Your task to perform on an android device: View the shopping cart on amazon.com. Add "beats solo 3" to the cart on amazon.com Image 0: 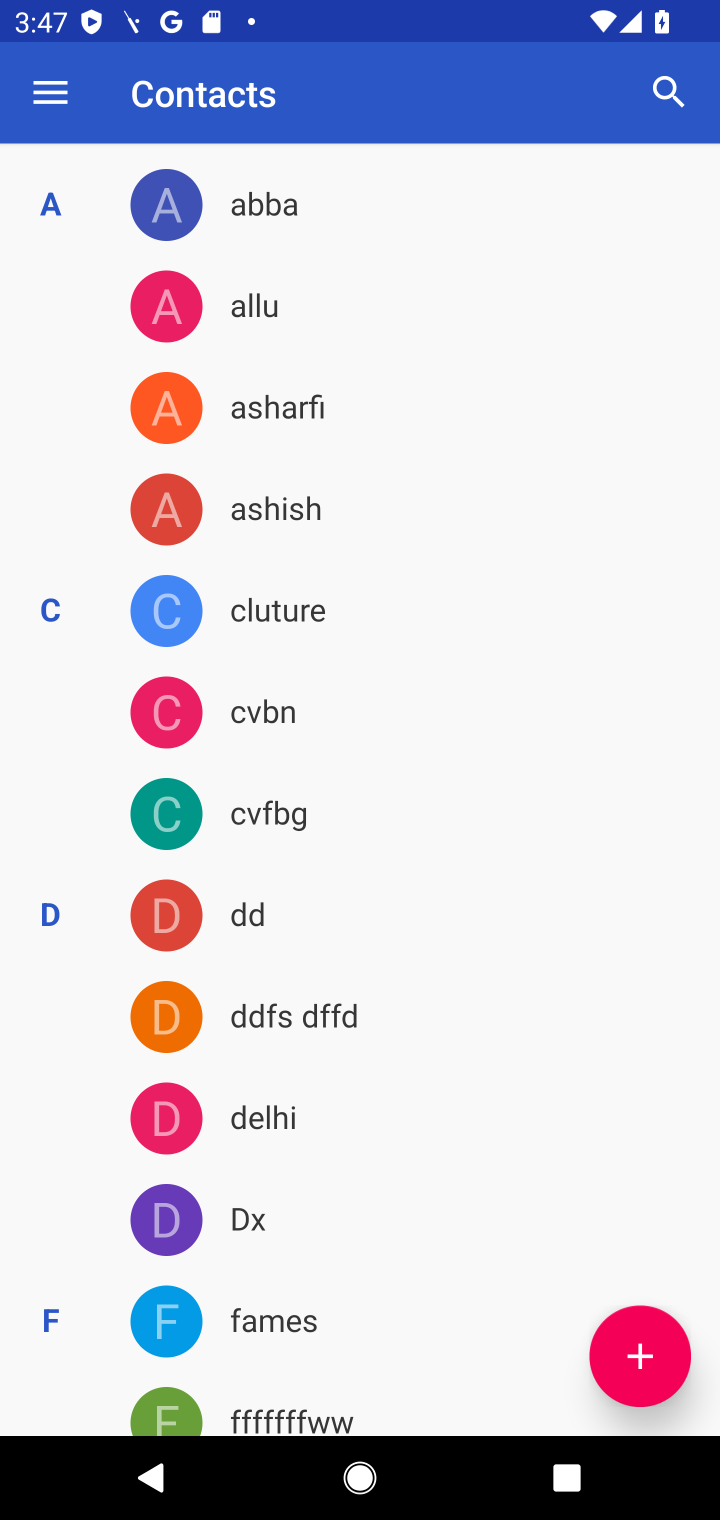
Step 0: press home button
Your task to perform on an android device: View the shopping cart on amazon.com. Add "beats solo 3" to the cart on amazon.com Image 1: 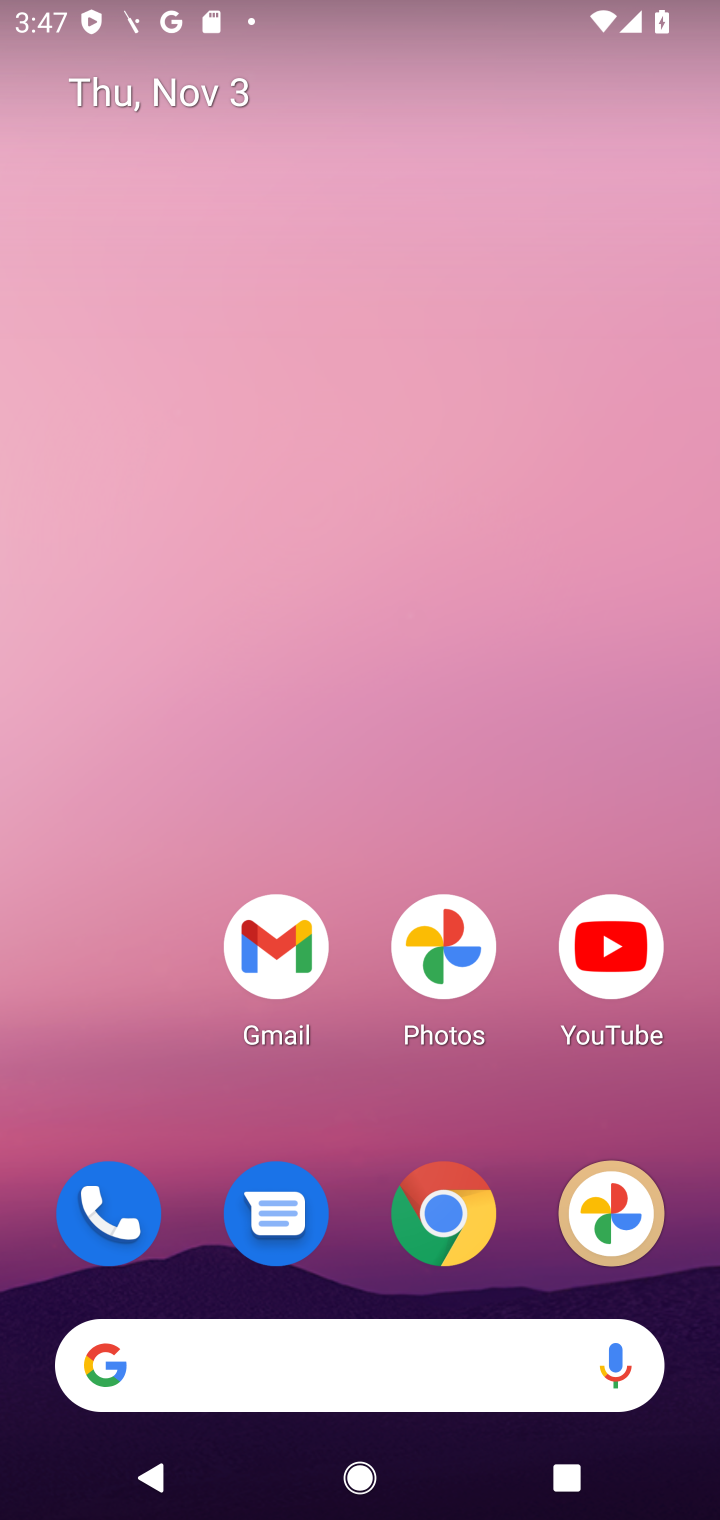
Step 1: click (436, 1234)
Your task to perform on an android device: View the shopping cart on amazon.com. Add "beats solo 3" to the cart on amazon.com Image 2: 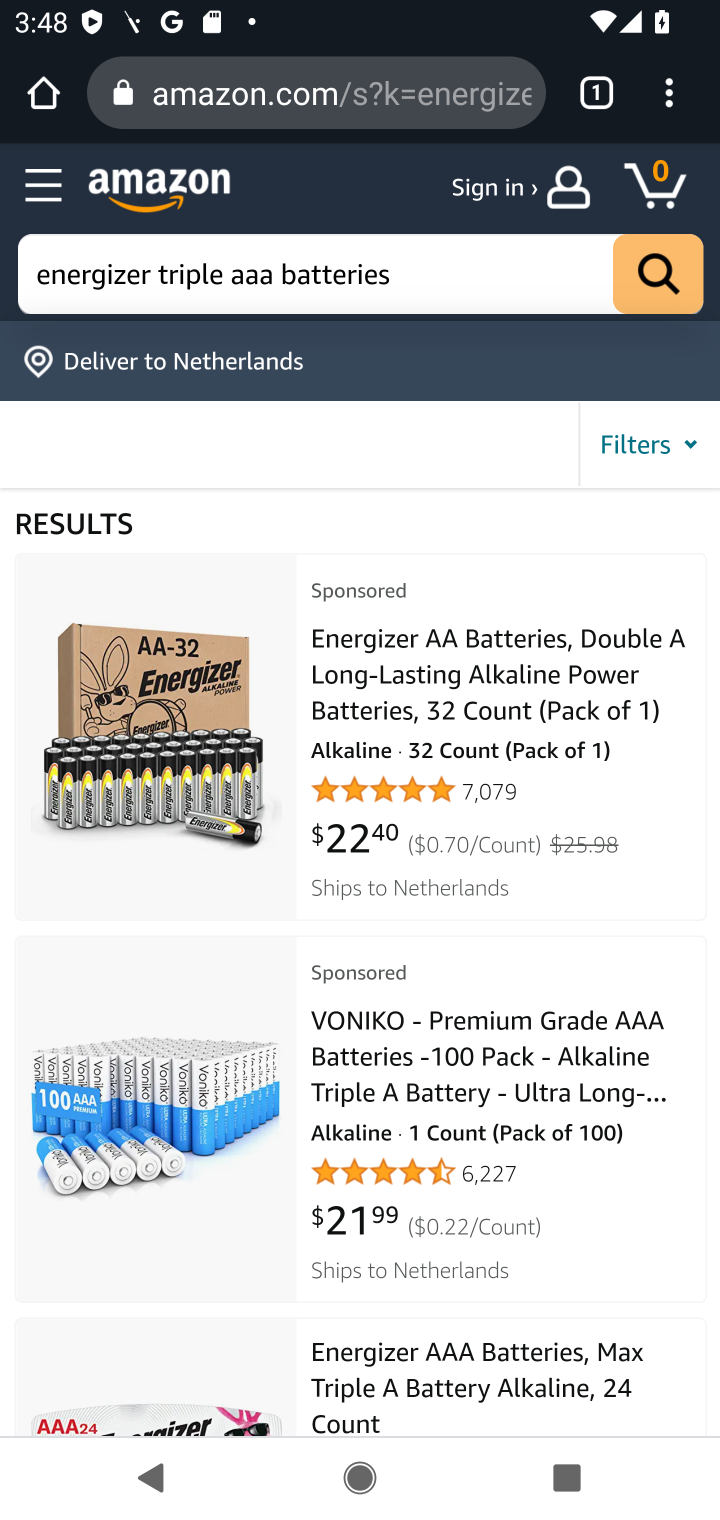
Step 2: click (658, 196)
Your task to perform on an android device: View the shopping cart on amazon.com. Add "beats solo 3" to the cart on amazon.com Image 3: 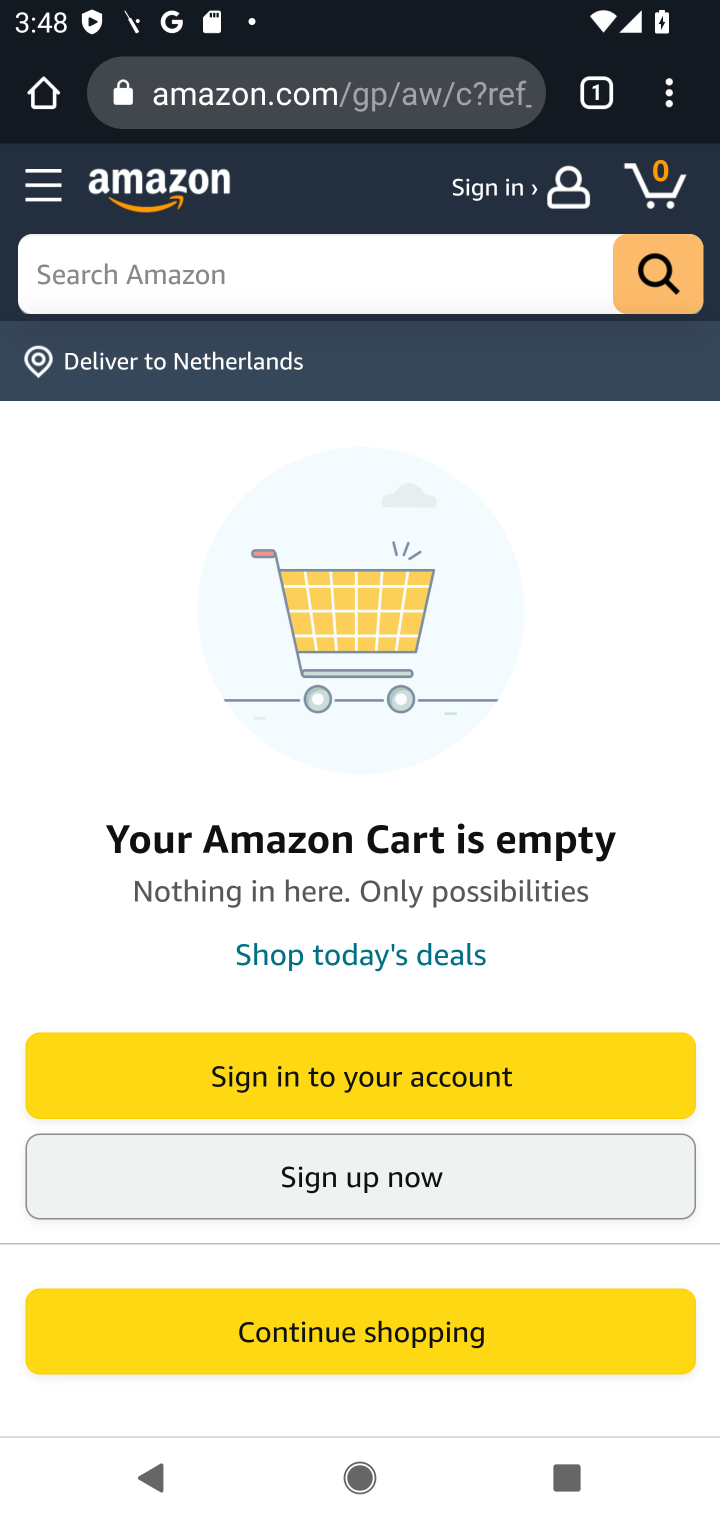
Step 3: click (208, 270)
Your task to perform on an android device: View the shopping cart on amazon.com. Add "beats solo 3" to the cart on amazon.com Image 4: 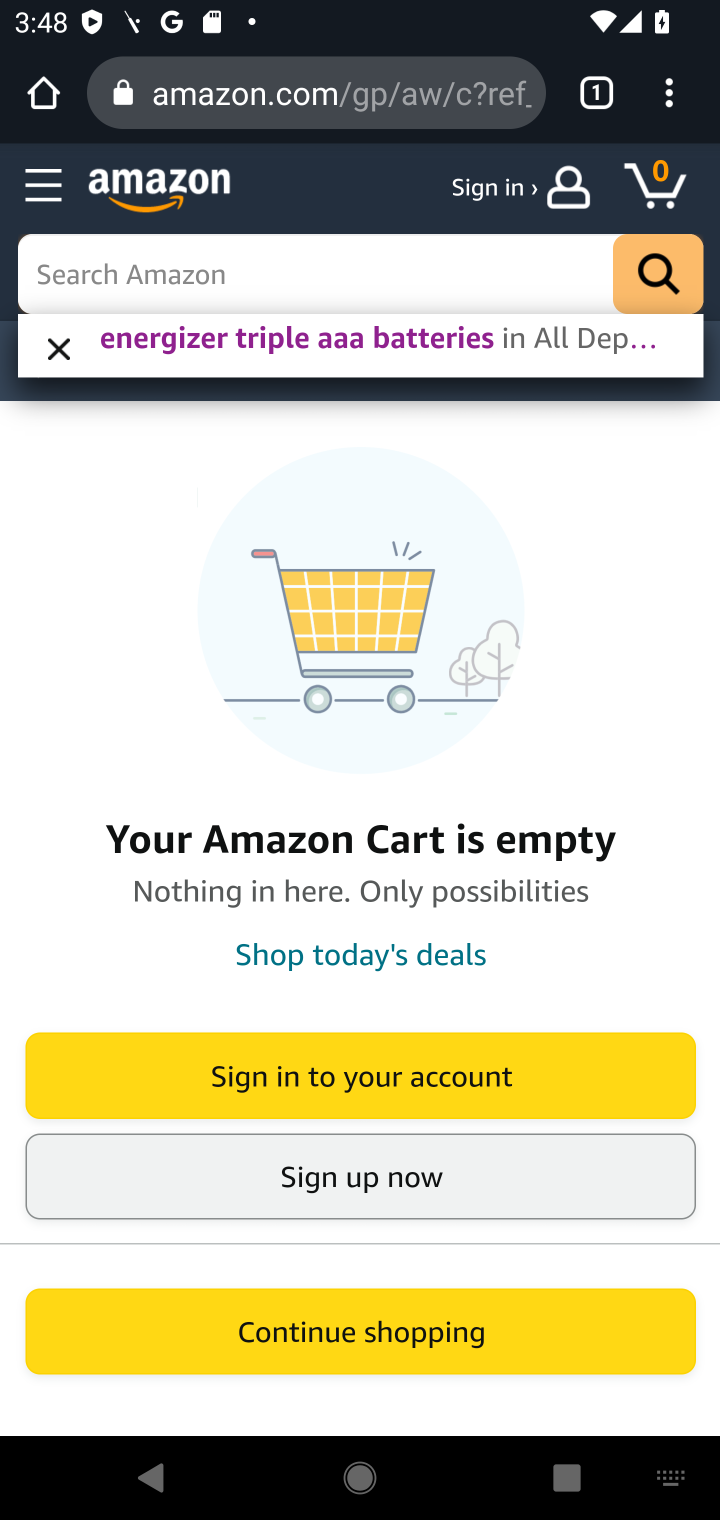
Step 4: type "beats solo 3"
Your task to perform on an android device: View the shopping cart on amazon.com. Add "beats solo 3" to the cart on amazon.com Image 5: 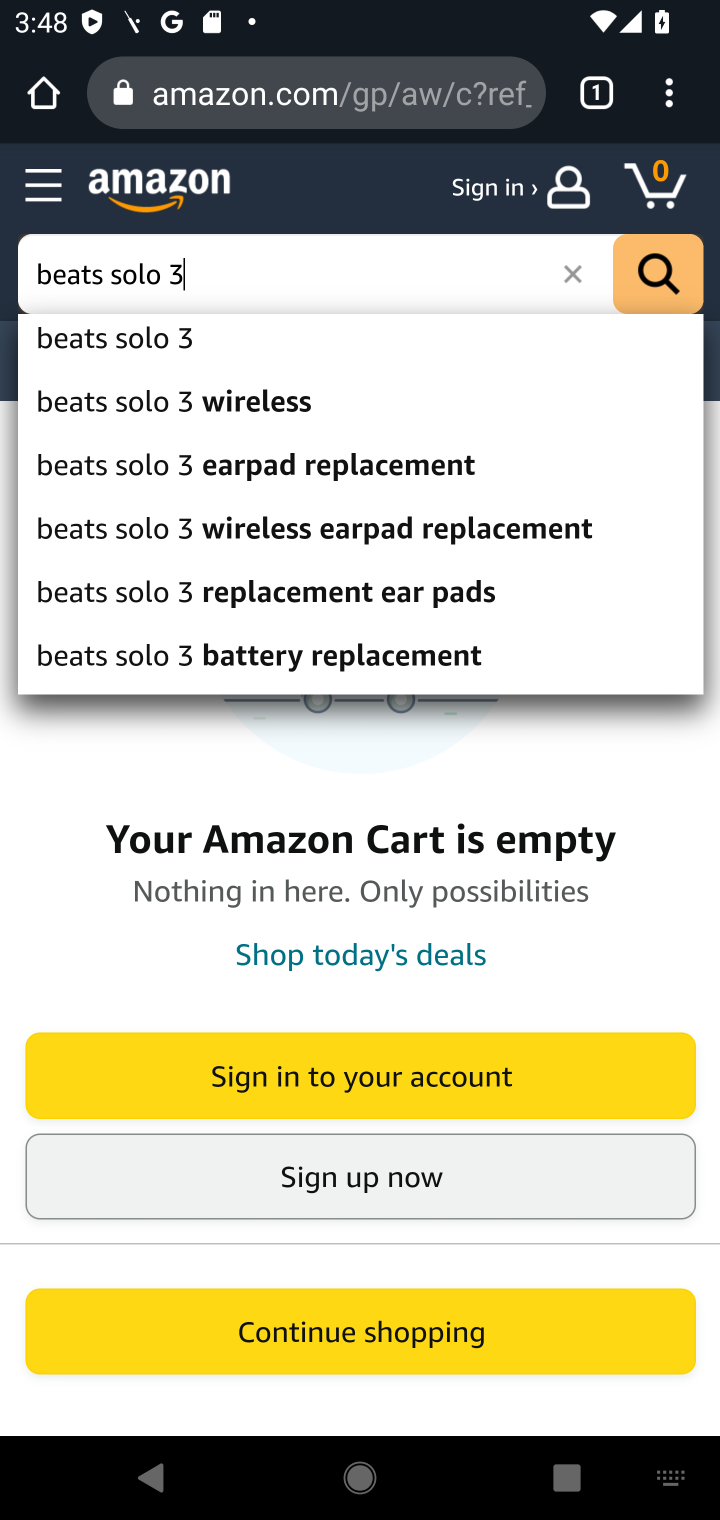
Step 5: click (53, 357)
Your task to perform on an android device: View the shopping cart on amazon.com. Add "beats solo 3" to the cart on amazon.com Image 6: 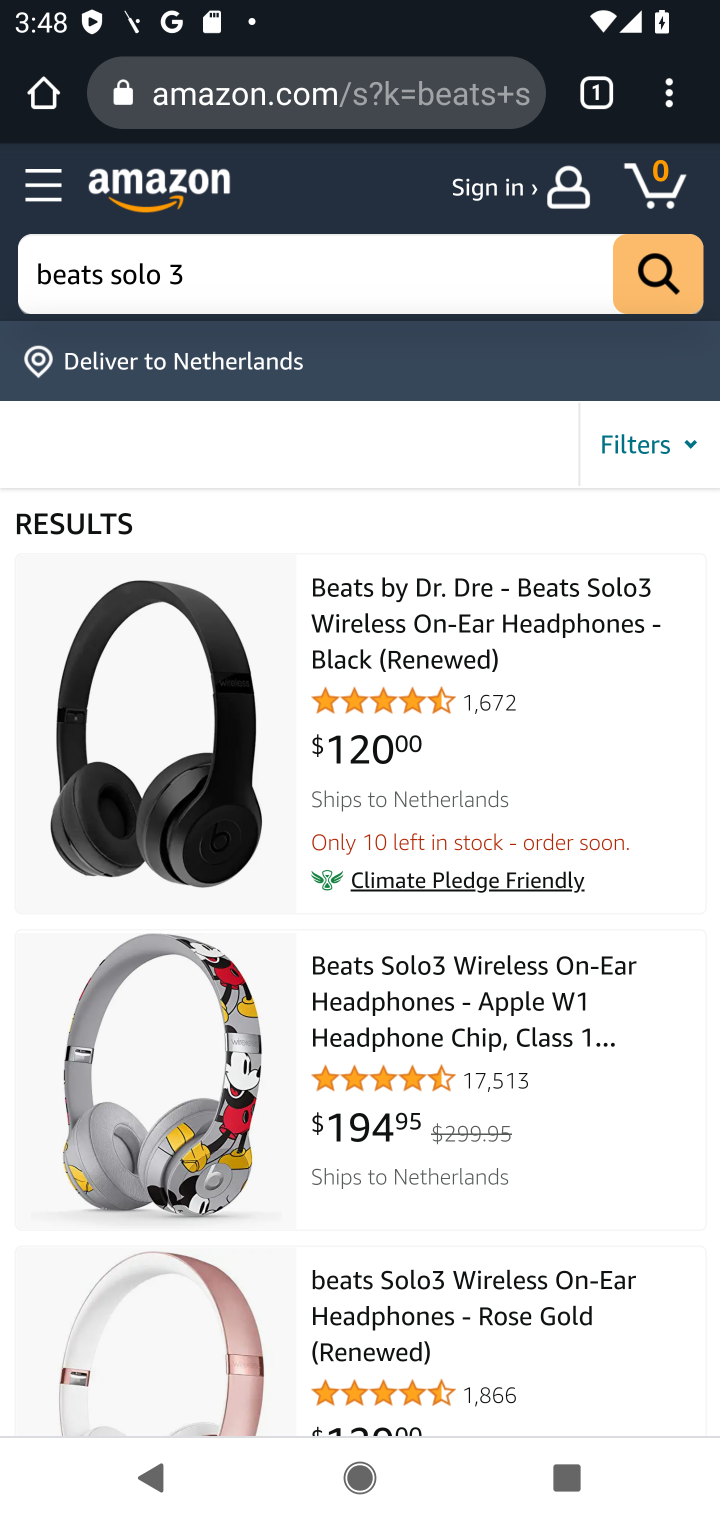
Step 6: click (374, 729)
Your task to perform on an android device: View the shopping cart on amazon.com. Add "beats solo 3" to the cart on amazon.com Image 7: 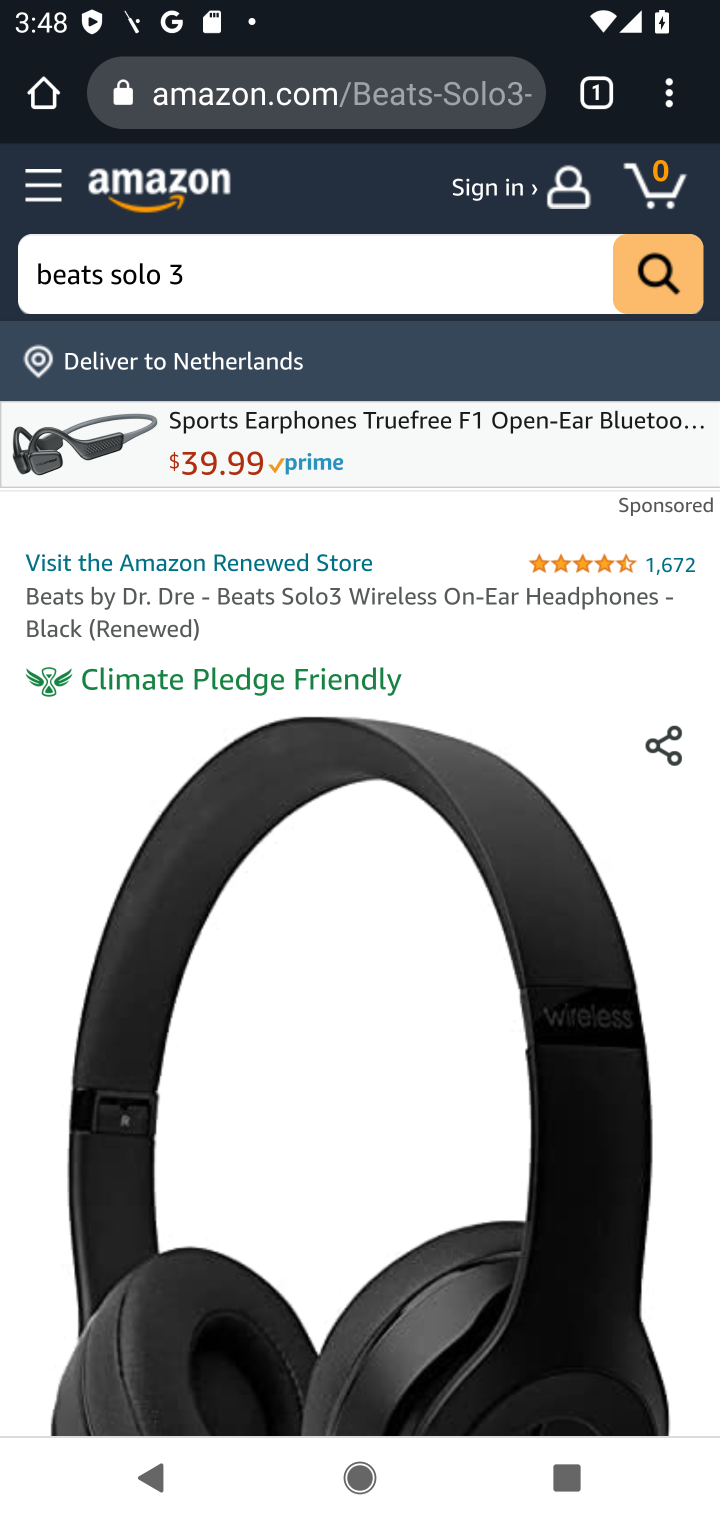
Step 7: drag from (370, 974) to (416, 263)
Your task to perform on an android device: View the shopping cart on amazon.com. Add "beats solo 3" to the cart on amazon.com Image 8: 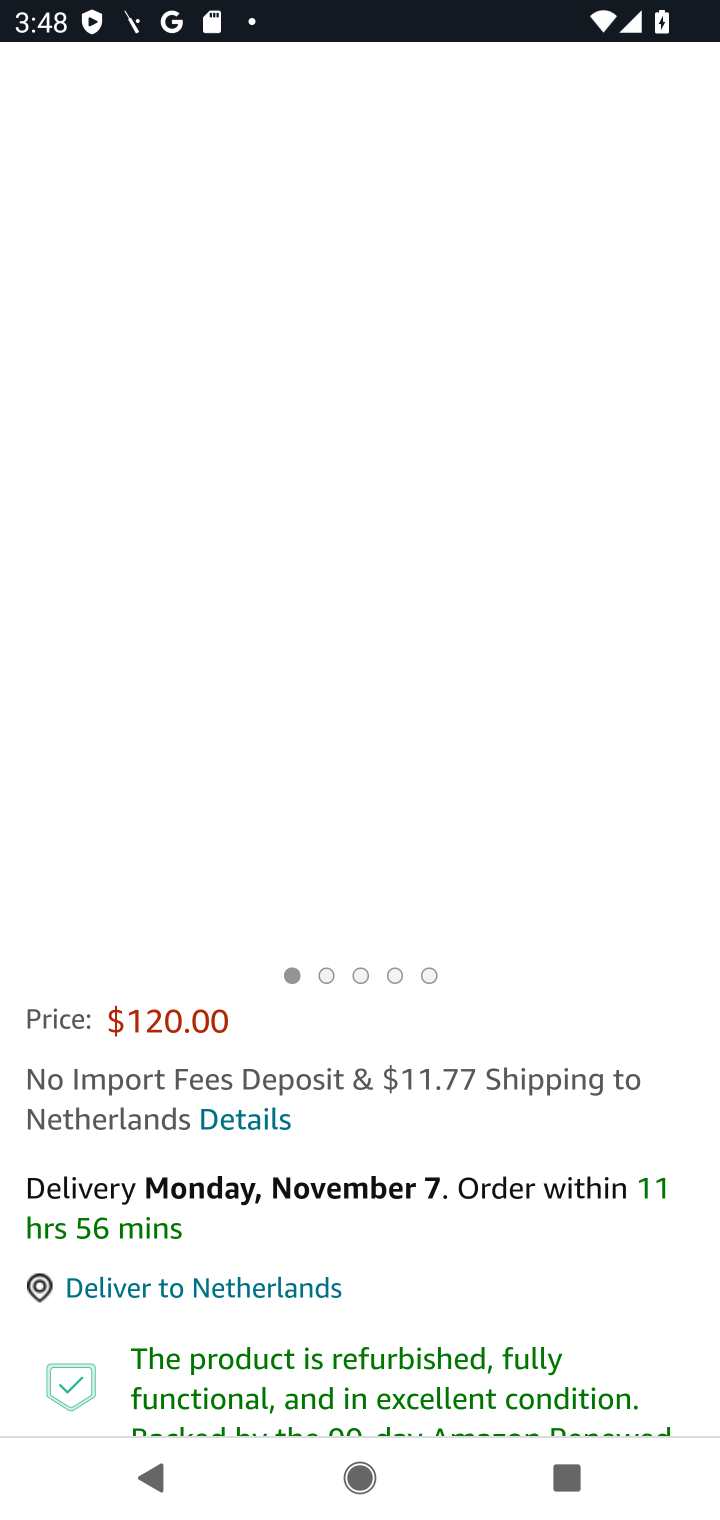
Step 8: drag from (334, 962) to (358, 249)
Your task to perform on an android device: View the shopping cart on amazon.com. Add "beats solo 3" to the cart on amazon.com Image 9: 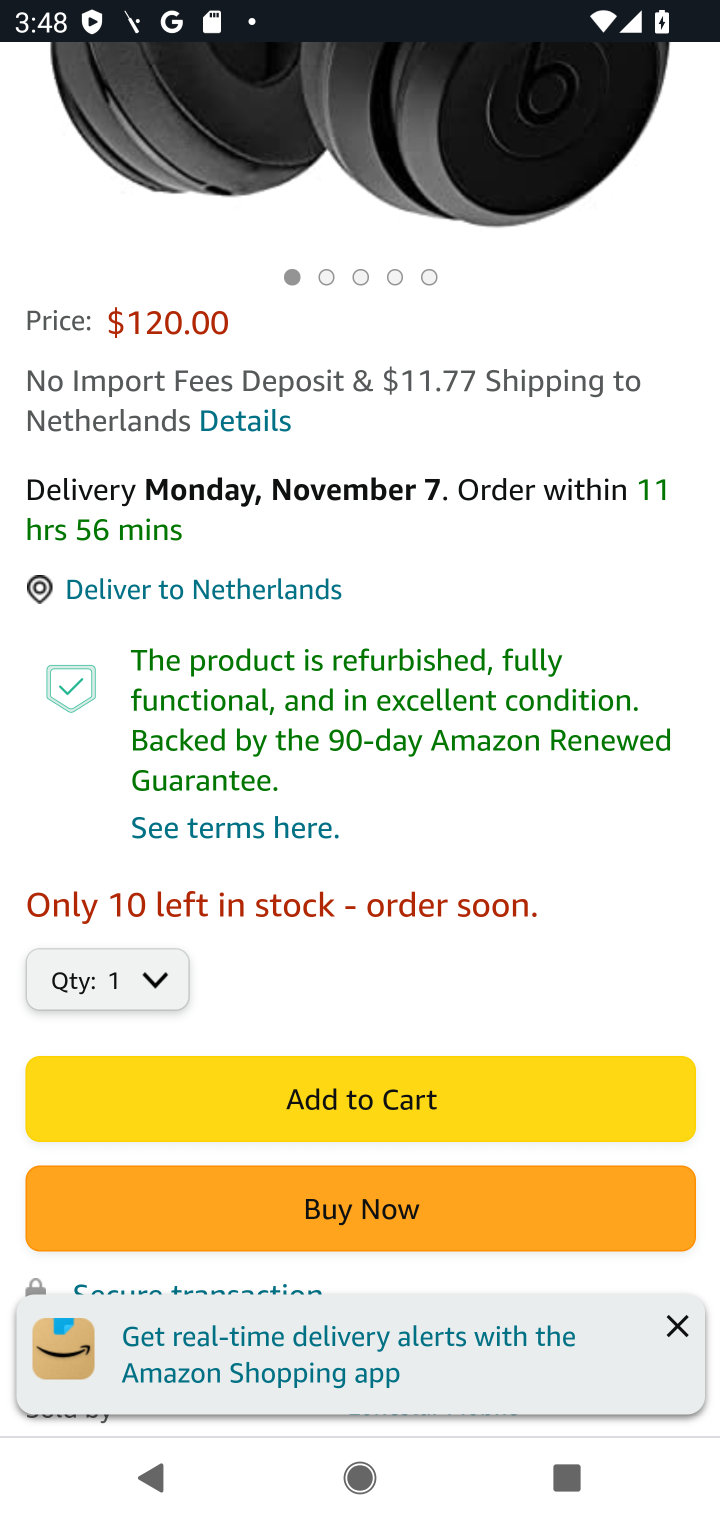
Step 9: click (352, 1097)
Your task to perform on an android device: View the shopping cart on amazon.com. Add "beats solo 3" to the cart on amazon.com Image 10: 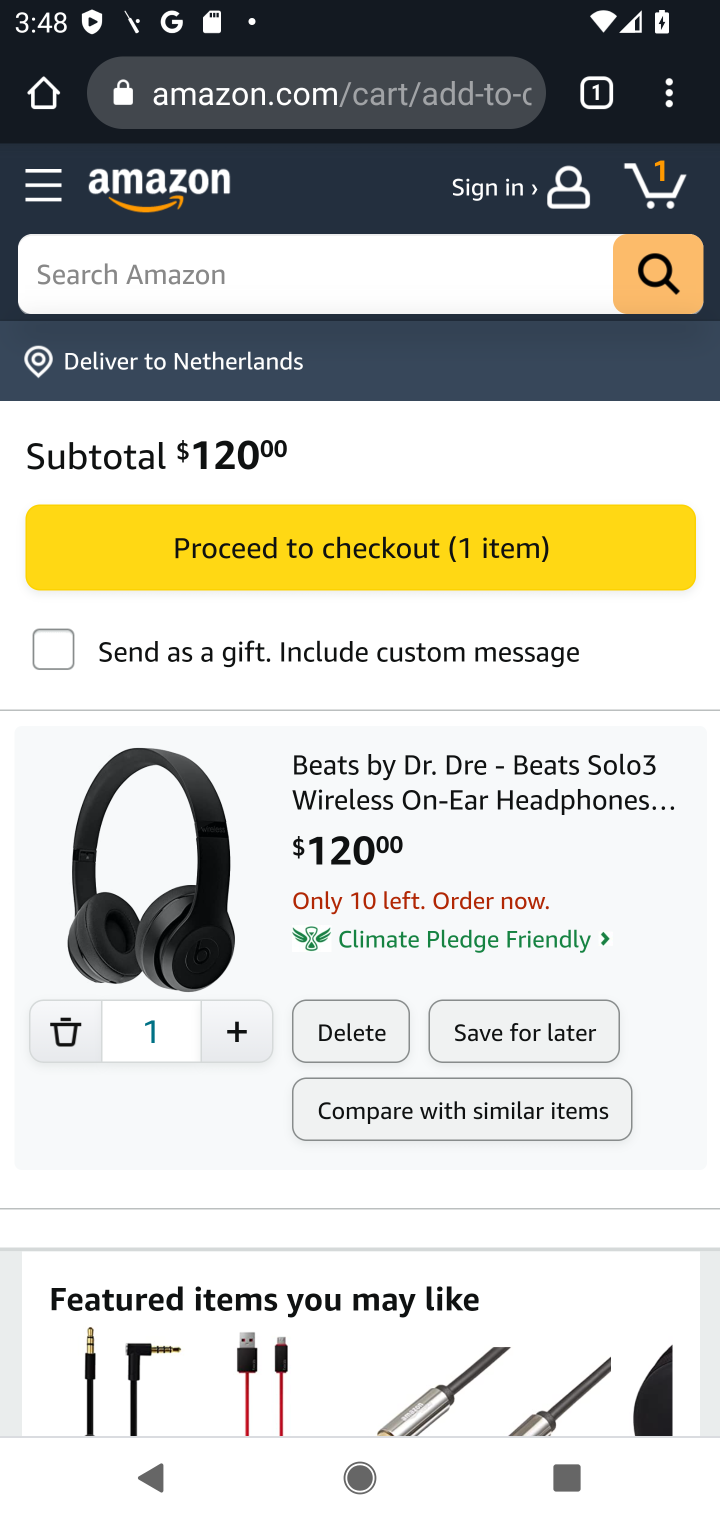
Step 10: task complete